Your task to perform on an android device: manage bookmarks in the chrome app Image 0: 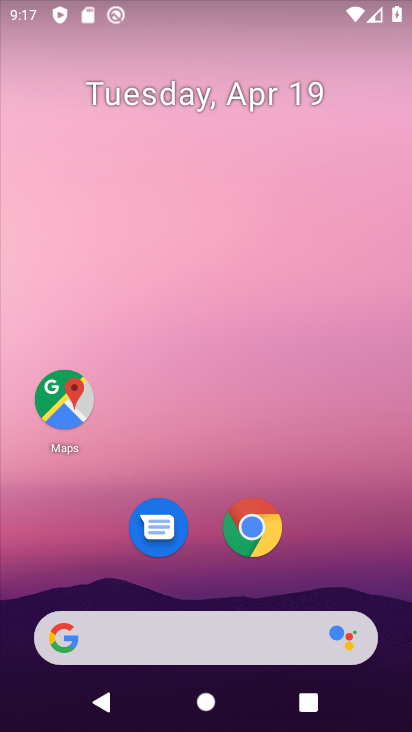
Step 0: click (280, 284)
Your task to perform on an android device: manage bookmarks in the chrome app Image 1: 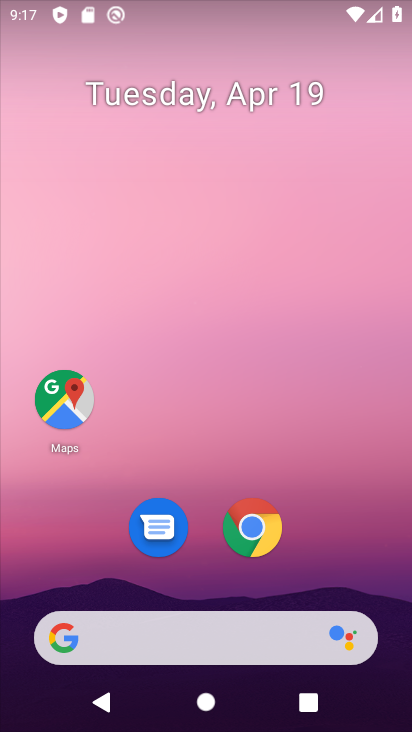
Step 1: drag from (222, 668) to (268, 232)
Your task to perform on an android device: manage bookmarks in the chrome app Image 2: 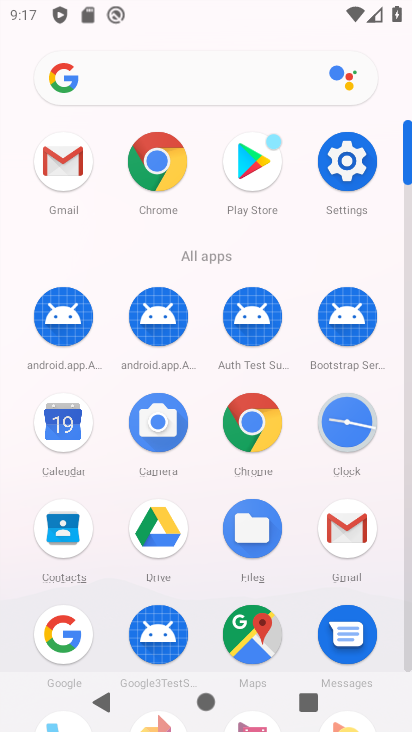
Step 2: click (161, 173)
Your task to perform on an android device: manage bookmarks in the chrome app Image 3: 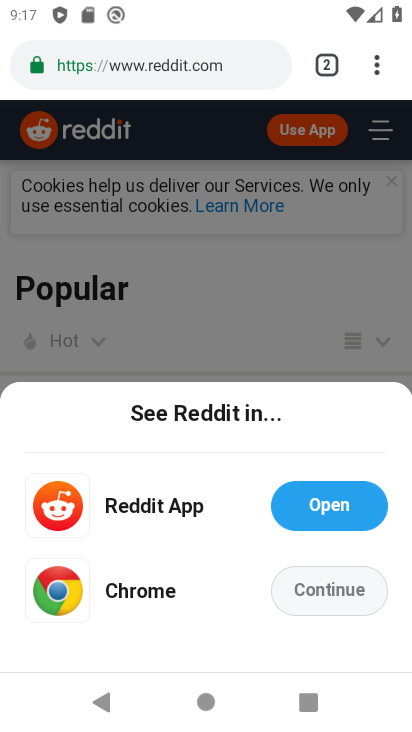
Step 3: click (380, 62)
Your task to perform on an android device: manage bookmarks in the chrome app Image 4: 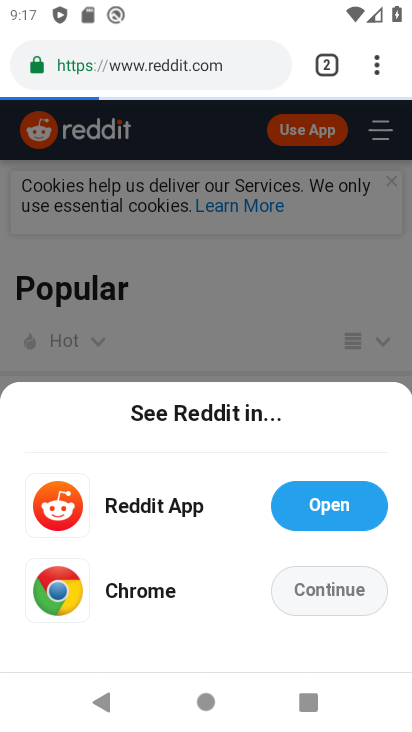
Step 4: click (380, 62)
Your task to perform on an android device: manage bookmarks in the chrome app Image 5: 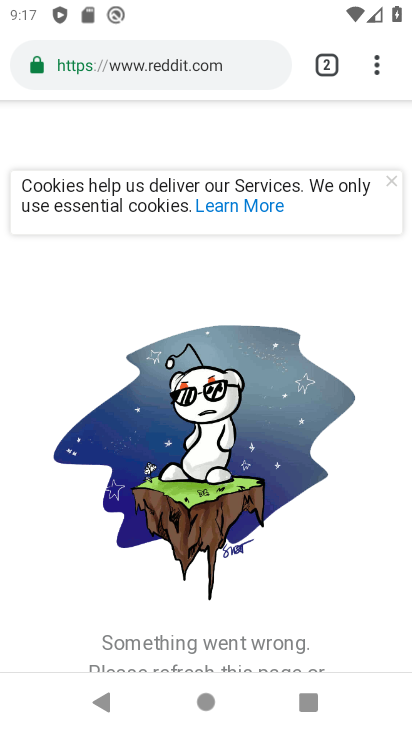
Step 5: drag from (347, 108) to (370, 69)
Your task to perform on an android device: manage bookmarks in the chrome app Image 6: 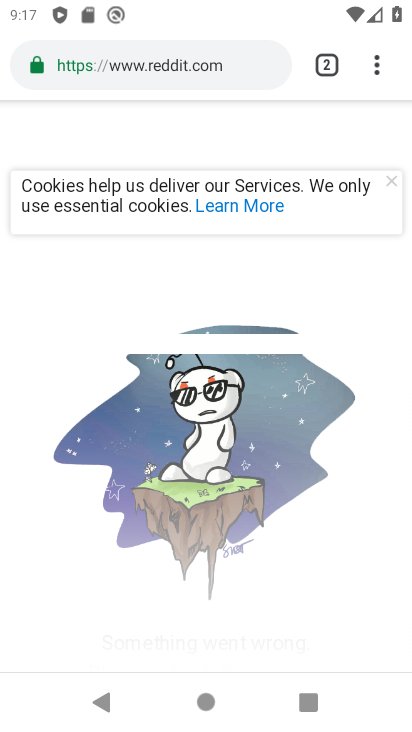
Step 6: click (370, 69)
Your task to perform on an android device: manage bookmarks in the chrome app Image 7: 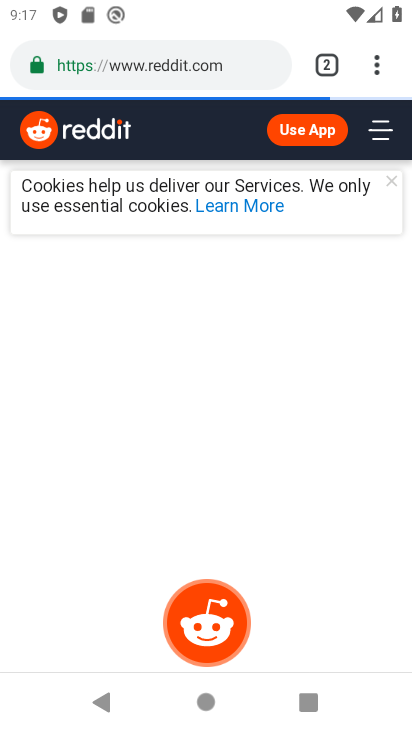
Step 7: click (375, 75)
Your task to perform on an android device: manage bookmarks in the chrome app Image 8: 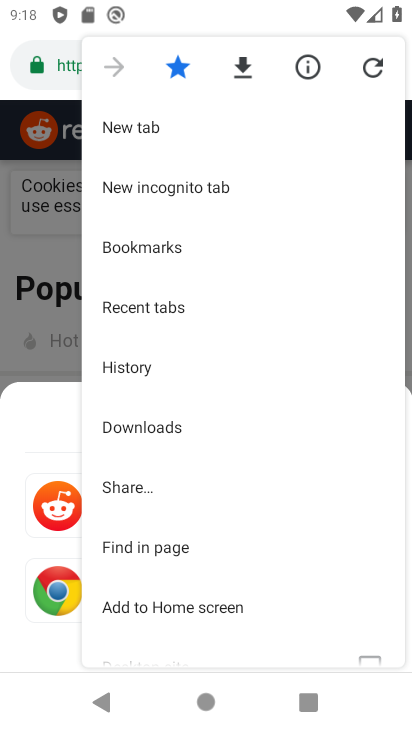
Step 8: click (167, 251)
Your task to perform on an android device: manage bookmarks in the chrome app Image 9: 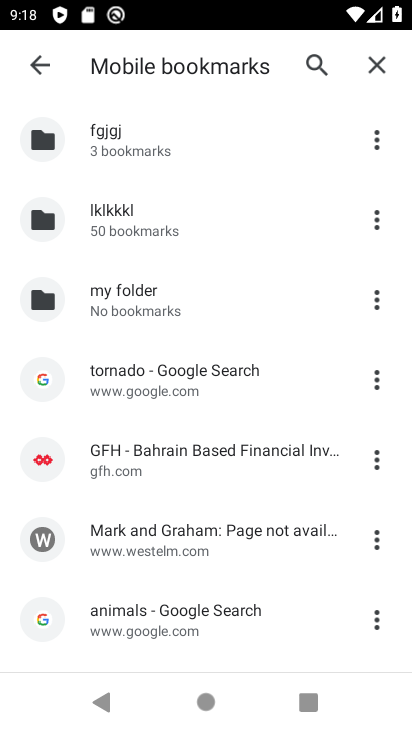
Step 9: task complete